Your task to perform on an android device: set the timer Image 0: 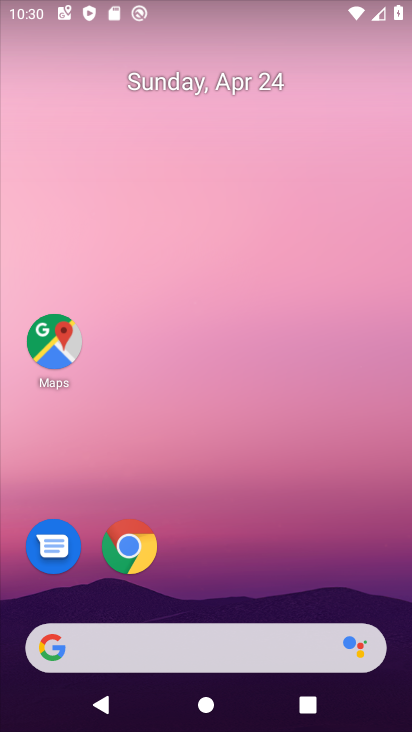
Step 0: drag from (351, 592) to (329, 17)
Your task to perform on an android device: set the timer Image 1: 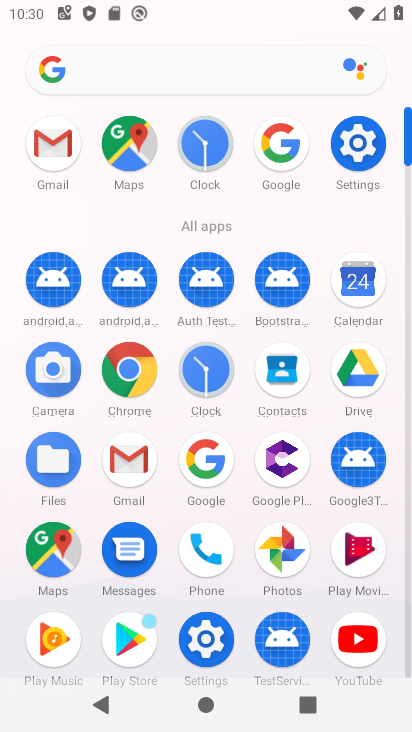
Step 1: click (201, 145)
Your task to perform on an android device: set the timer Image 2: 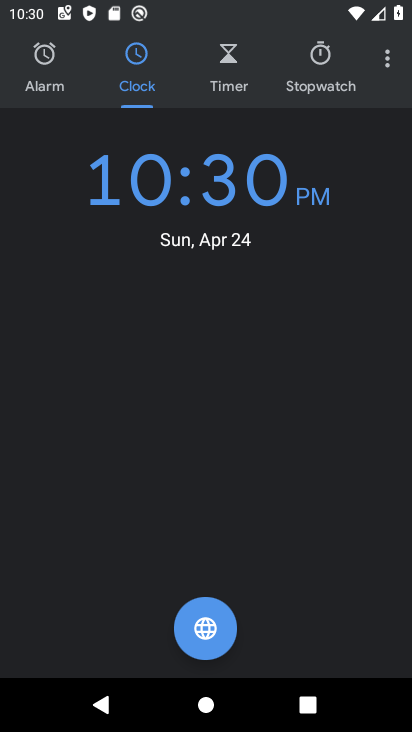
Step 2: click (232, 75)
Your task to perform on an android device: set the timer Image 3: 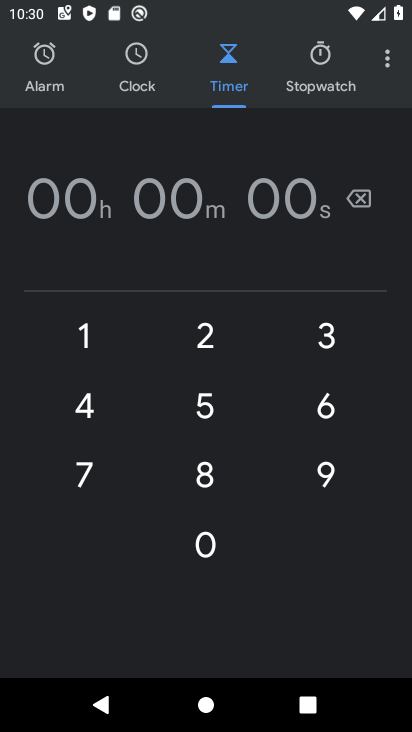
Step 3: click (209, 341)
Your task to perform on an android device: set the timer Image 4: 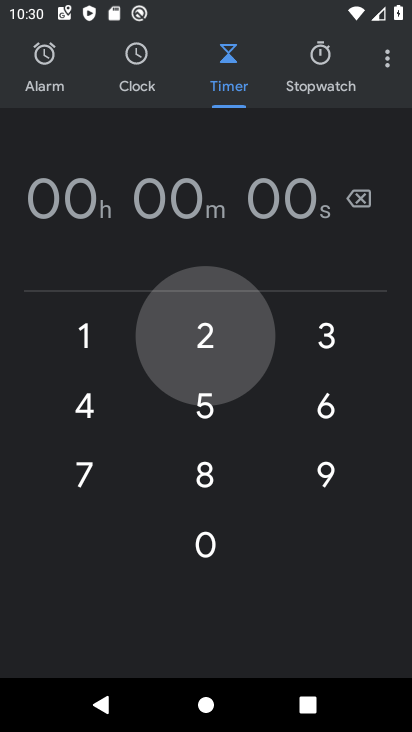
Step 4: click (204, 413)
Your task to perform on an android device: set the timer Image 5: 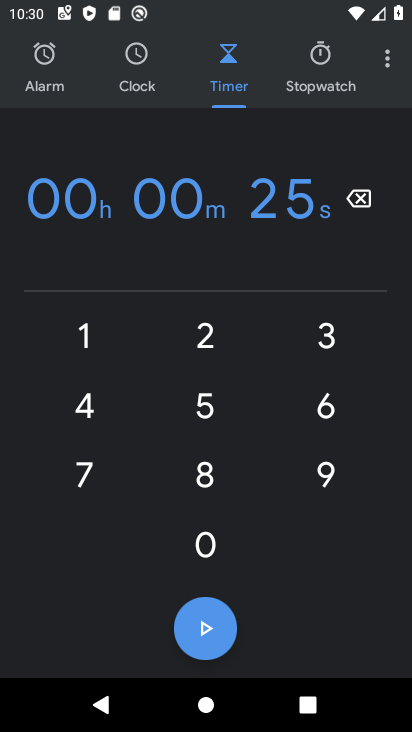
Step 5: click (90, 341)
Your task to perform on an android device: set the timer Image 6: 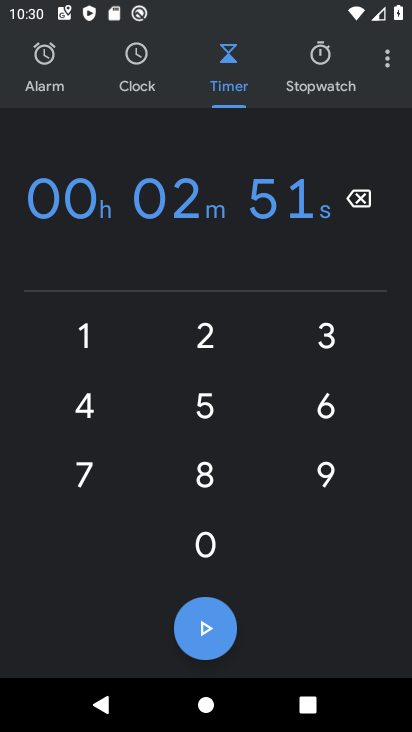
Step 6: click (201, 410)
Your task to perform on an android device: set the timer Image 7: 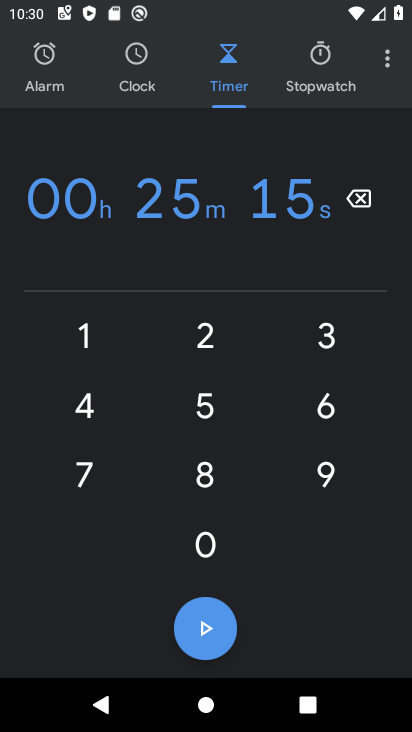
Step 7: click (208, 620)
Your task to perform on an android device: set the timer Image 8: 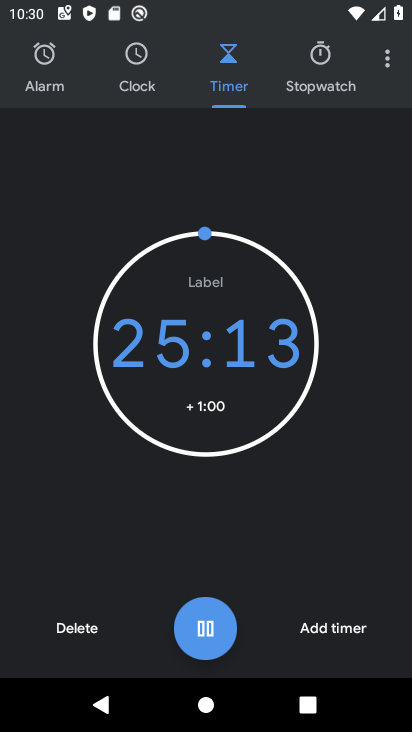
Step 8: task complete